Your task to perform on an android device: turn off smart reply in the gmail app Image 0: 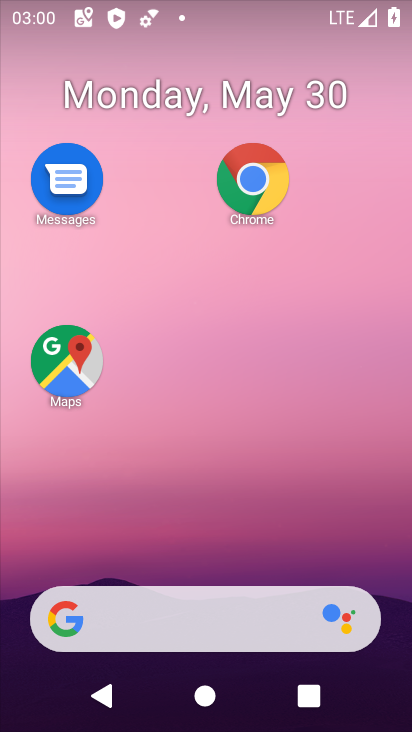
Step 0: drag from (190, 536) to (132, 0)
Your task to perform on an android device: turn off smart reply in the gmail app Image 1: 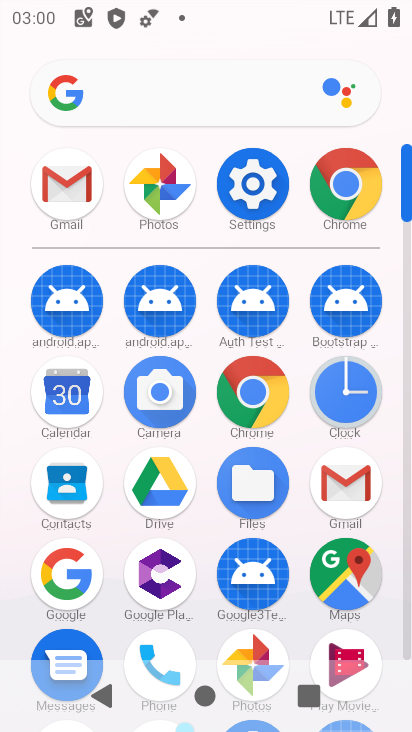
Step 1: click (384, 473)
Your task to perform on an android device: turn off smart reply in the gmail app Image 2: 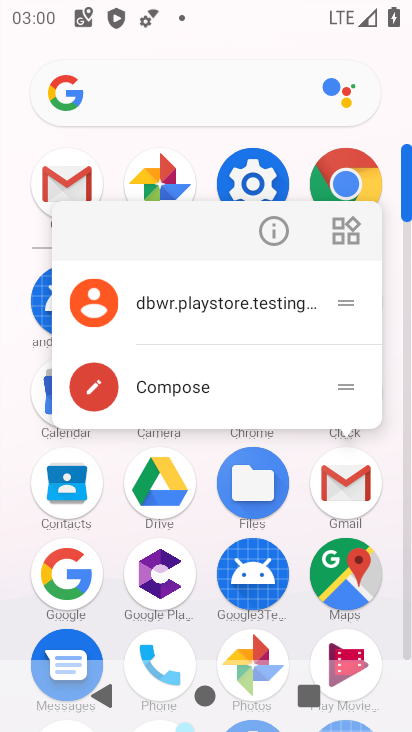
Step 2: click (338, 489)
Your task to perform on an android device: turn off smart reply in the gmail app Image 3: 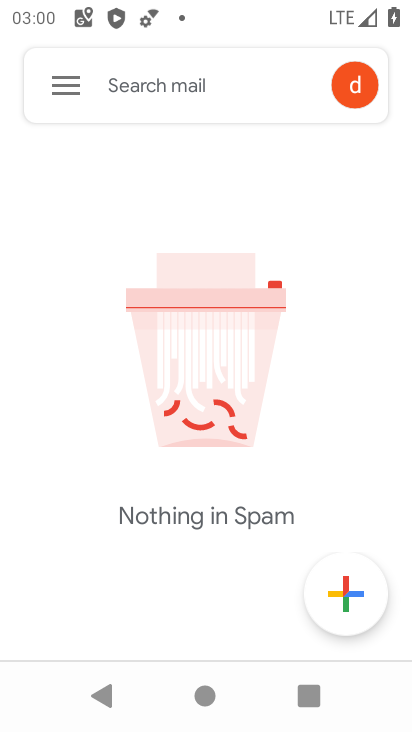
Step 3: click (61, 86)
Your task to perform on an android device: turn off smart reply in the gmail app Image 4: 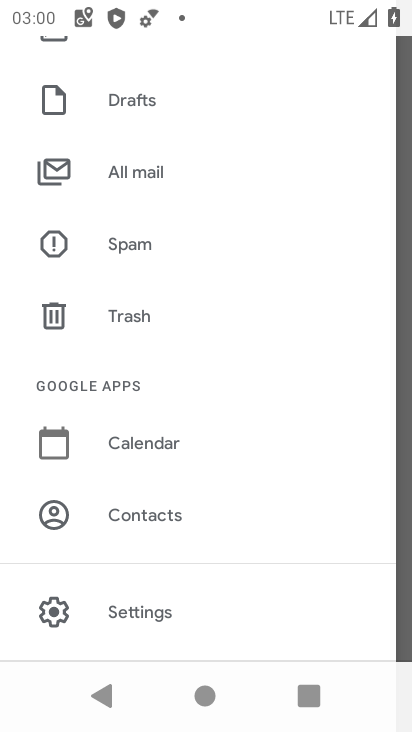
Step 4: drag from (217, 597) to (172, 121)
Your task to perform on an android device: turn off smart reply in the gmail app Image 5: 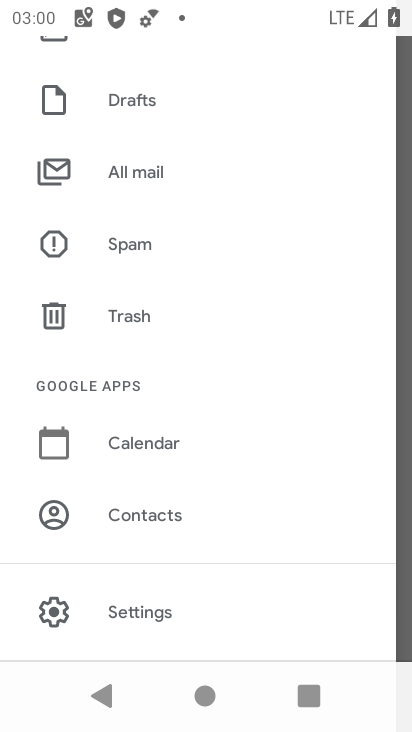
Step 5: click (138, 614)
Your task to perform on an android device: turn off smart reply in the gmail app Image 6: 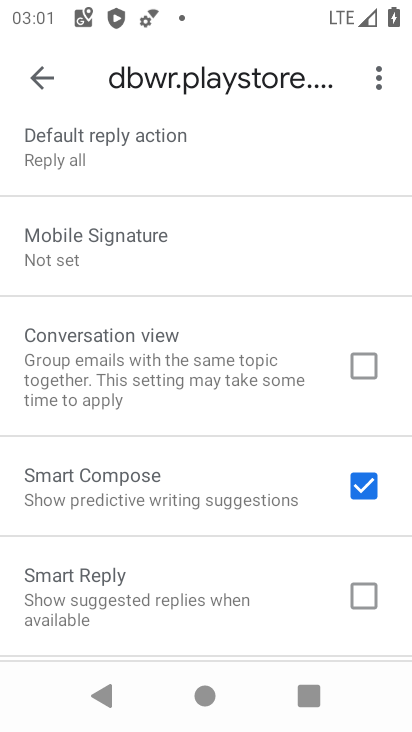
Step 6: task complete